Your task to perform on an android device: turn pop-ups on in chrome Image 0: 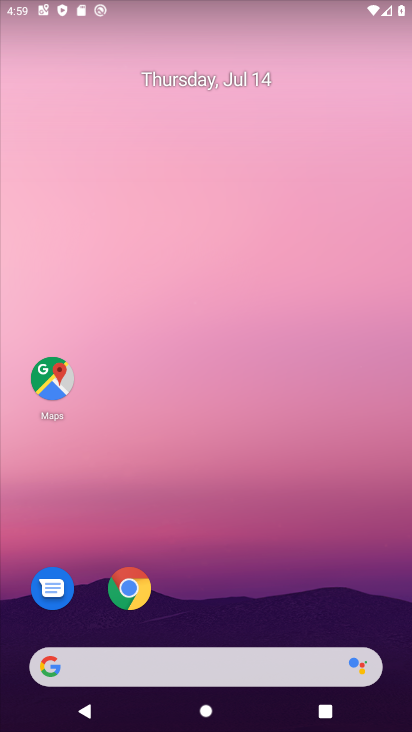
Step 0: click (131, 596)
Your task to perform on an android device: turn pop-ups on in chrome Image 1: 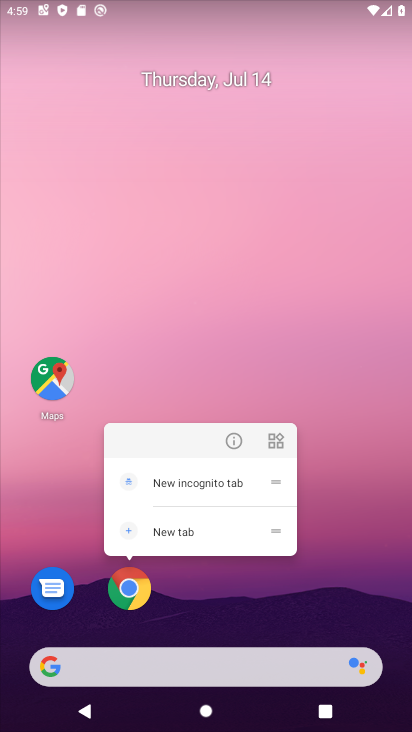
Step 1: click (130, 574)
Your task to perform on an android device: turn pop-ups on in chrome Image 2: 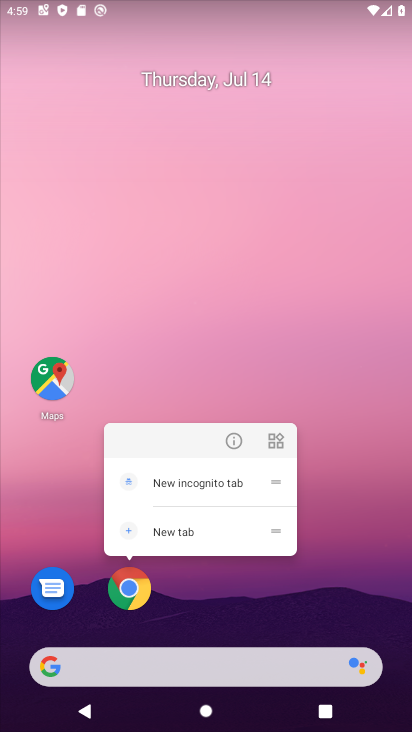
Step 2: click (124, 592)
Your task to perform on an android device: turn pop-ups on in chrome Image 3: 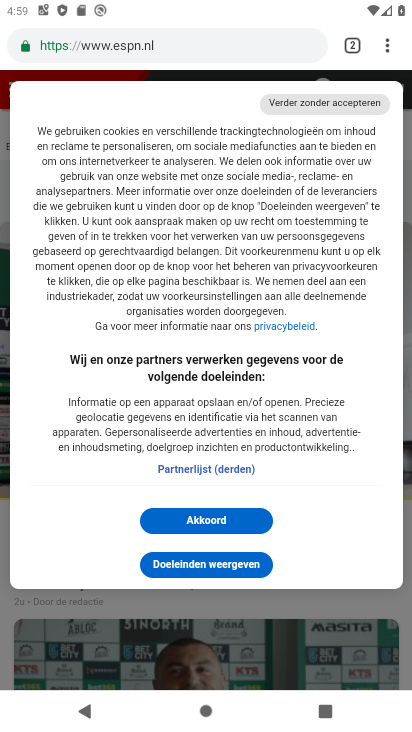
Step 3: click (390, 41)
Your task to perform on an android device: turn pop-ups on in chrome Image 4: 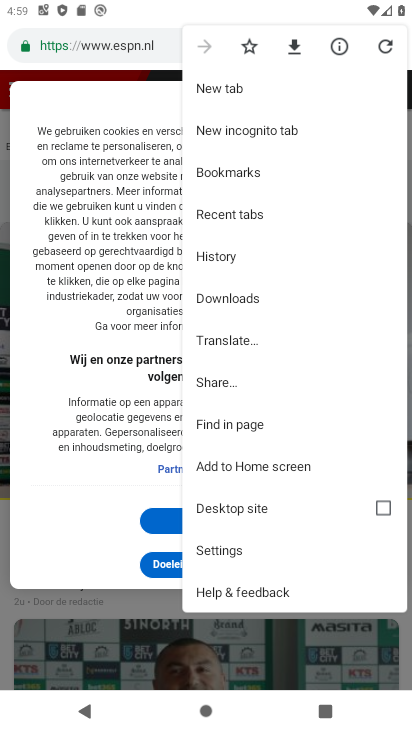
Step 4: click (234, 550)
Your task to perform on an android device: turn pop-ups on in chrome Image 5: 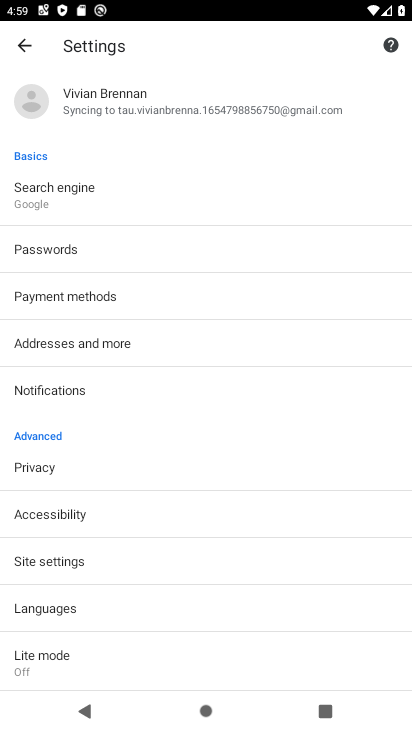
Step 5: click (31, 552)
Your task to perform on an android device: turn pop-ups on in chrome Image 6: 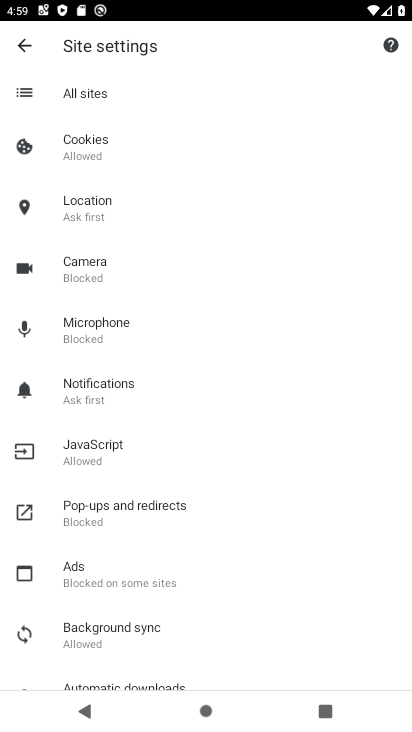
Step 6: click (94, 507)
Your task to perform on an android device: turn pop-ups on in chrome Image 7: 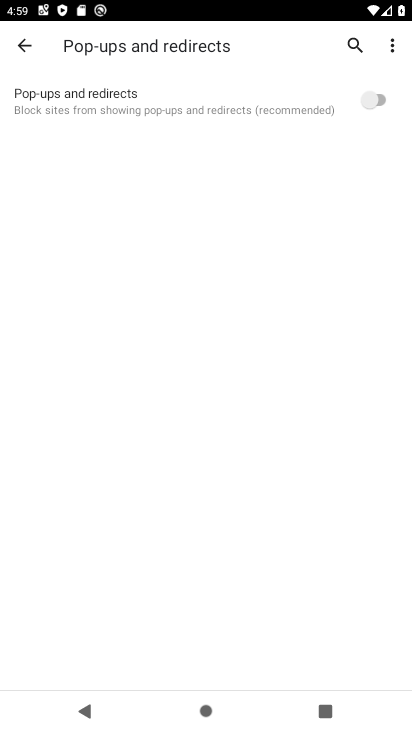
Step 7: click (382, 95)
Your task to perform on an android device: turn pop-ups on in chrome Image 8: 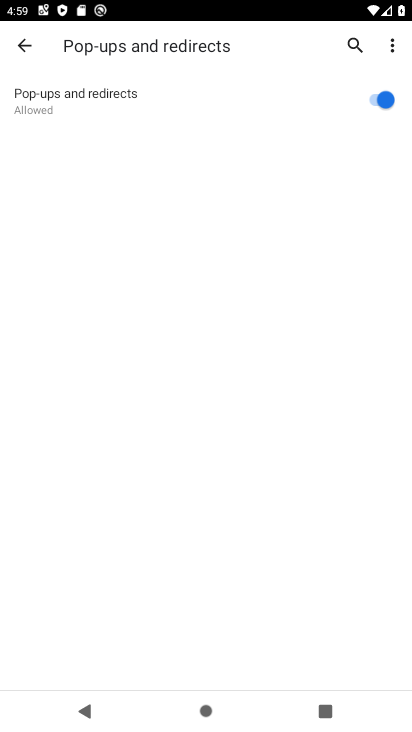
Step 8: task complete